Your task to perform on an android device: toggle location history Image 0: 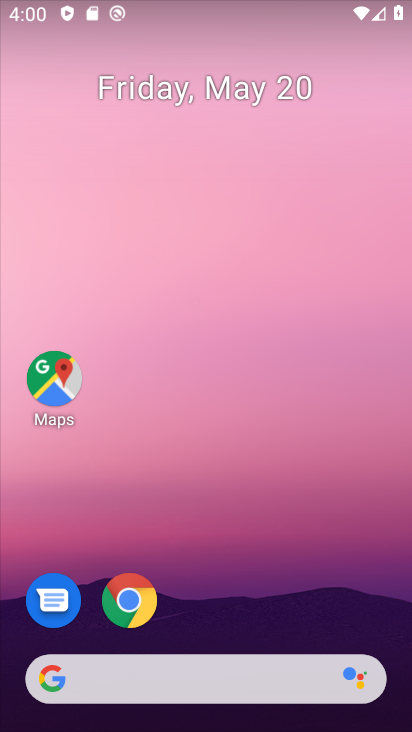
Step 0: drag from (251, 560) to (185, 30)
Your task to perform on an android device: toggle location history Image 1: 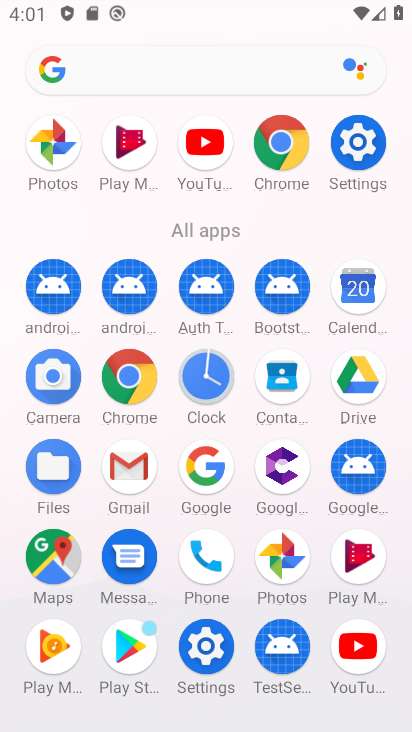
Step 1: click (205, 642)
Your task to perform on an android device: toggle location history Image 2: 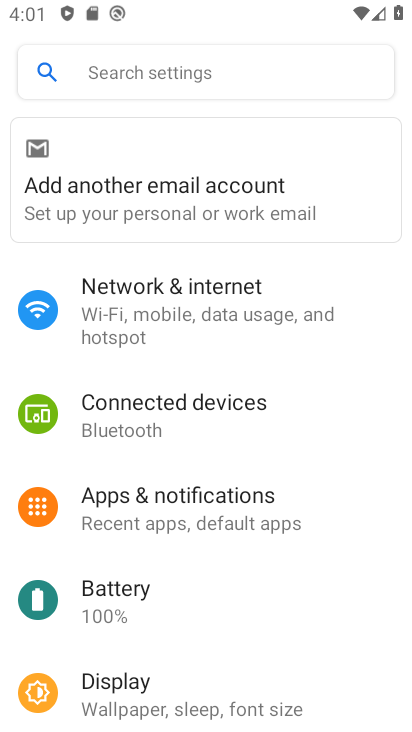
Step 2: drag from (309, 609) to (292, 264)
Your task to perform on an android device: toggle location history Image 3: 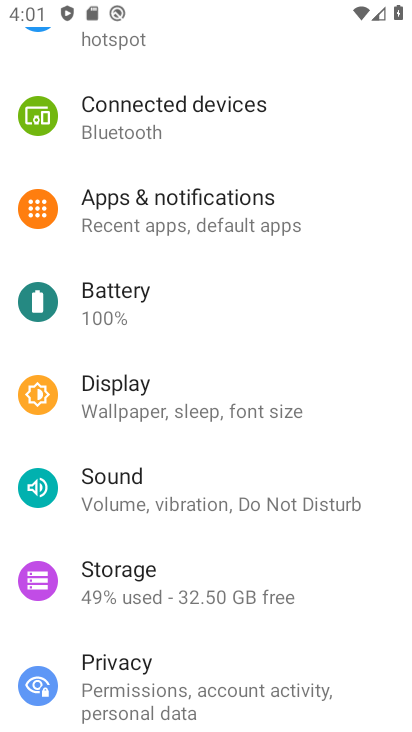
Step 3: drag from (324, 519) to (327, 144)
Your task to perform on an android device: toggle location history Image 4: 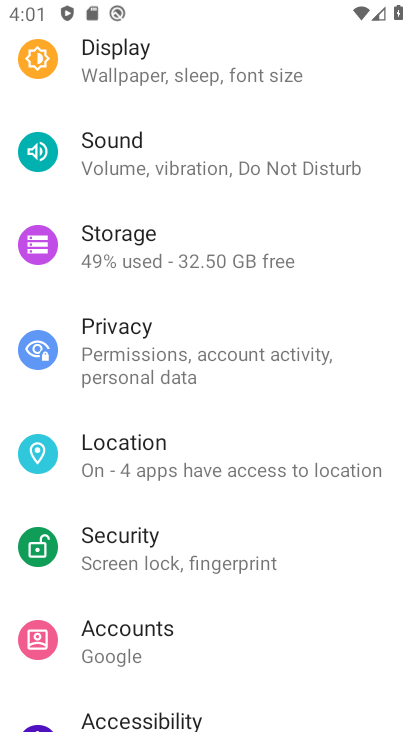
Step 4: click (168, 474)
Your task to perform on an android device: toggle location history Image 5: 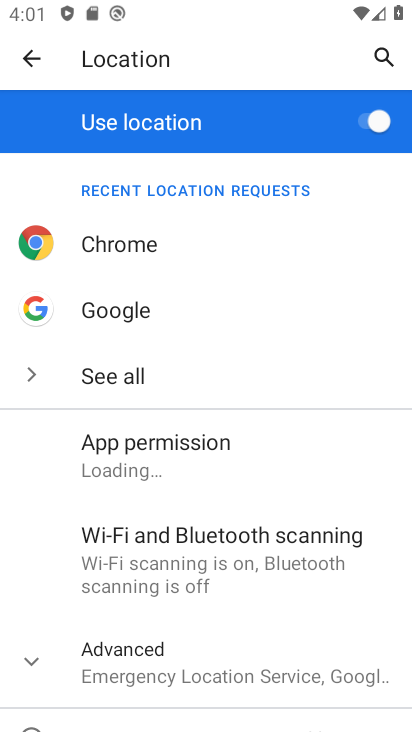
Step 5: click (111, 684)
Your task to perform on an android device: toggle location history Image 6: 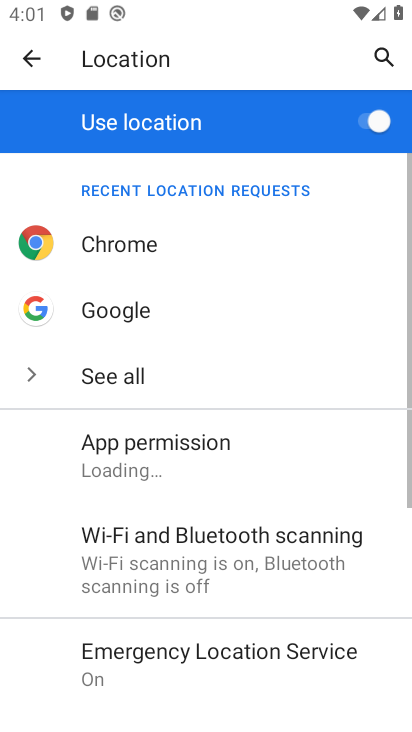
Step 6: drag from (253, 588) to (325, 201)
Your task to perform on an android device: toggle location history Image 7: 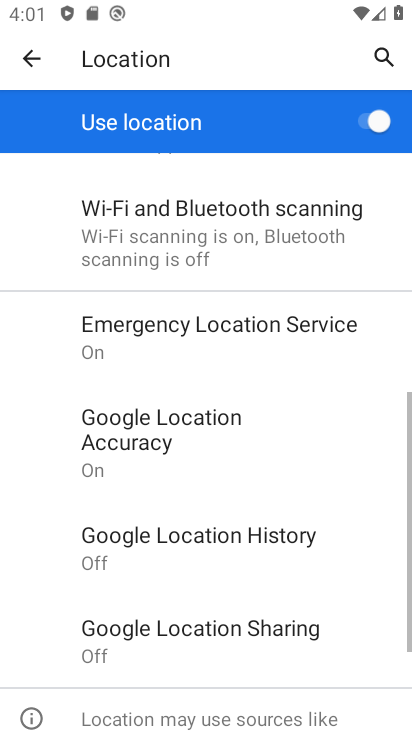
Step 7: click (234, 560)
Your task to perform on an android device: toggle location history Image 8: 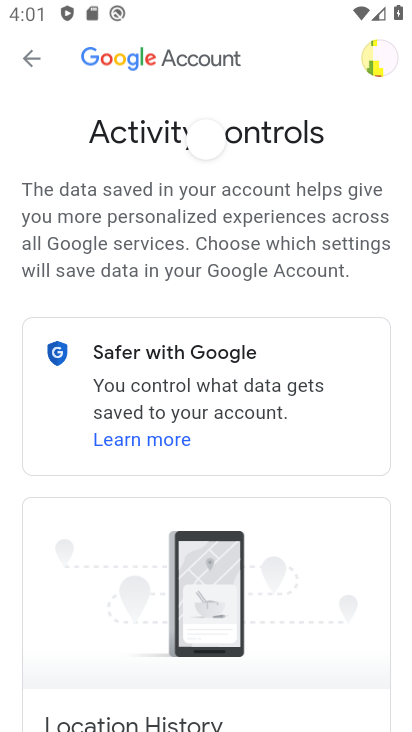
Step 8: drag from (129, 596) to (126, 195)
Your task to perform on an android device: toggle location history Image 9: 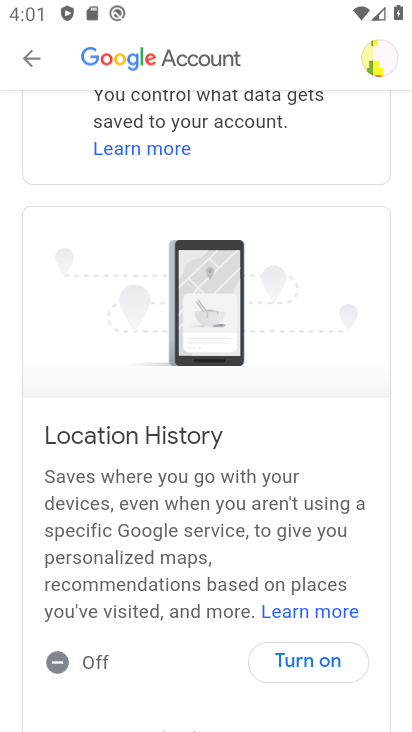
Step 9: drag from (81, 585) to (105, 185)
Your task to perform on an android device: toggle location history Image 10: 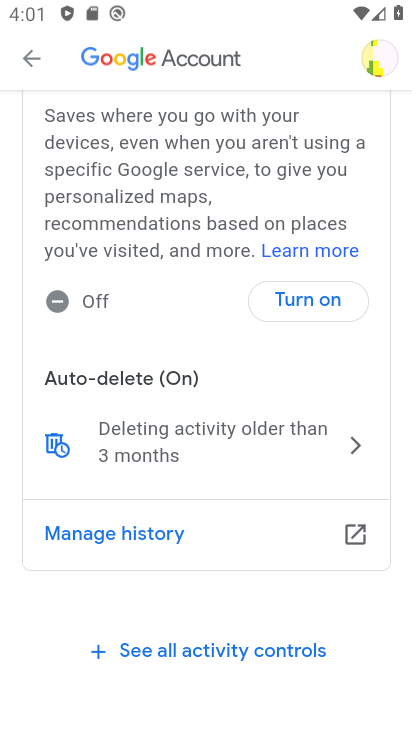
Step 10: click (279, 284)
Your task to perform on an android device: toggle location history Image 11: 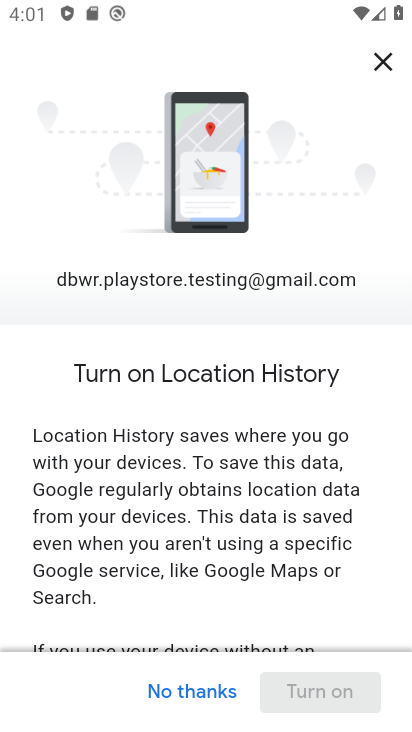
Step 11: drag from (286, 624) to (299, 156)
Your task to perform on an android device: toggle location history Image 12: 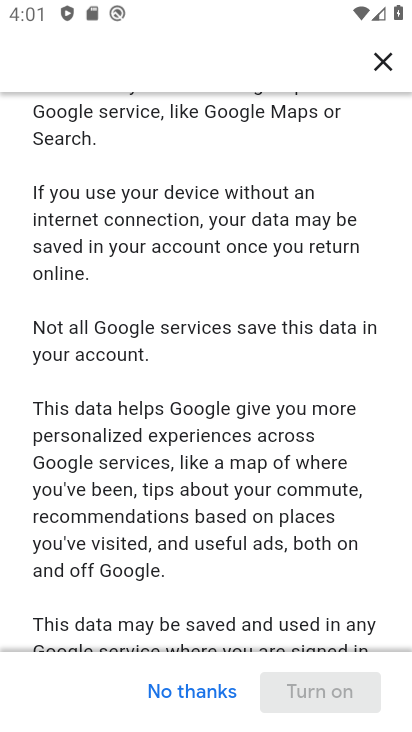
Step 12: drag from (149, 567) to (209, 79)
Your task to perform on an android device: toggle location history Image 13: 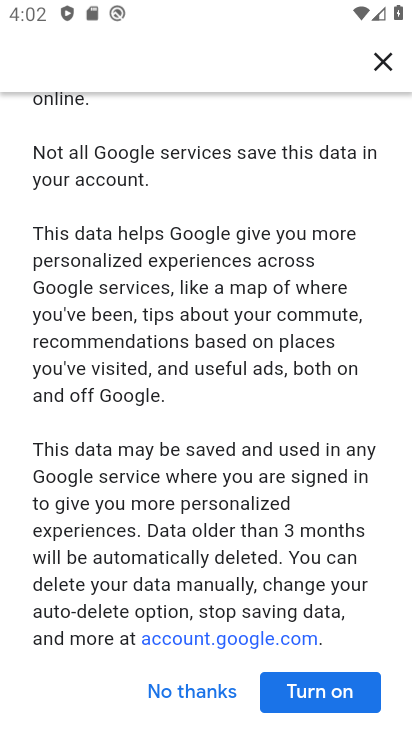
Step 13: click (296, 694)
Your task to perform on an android device: toggle location history Image 14: 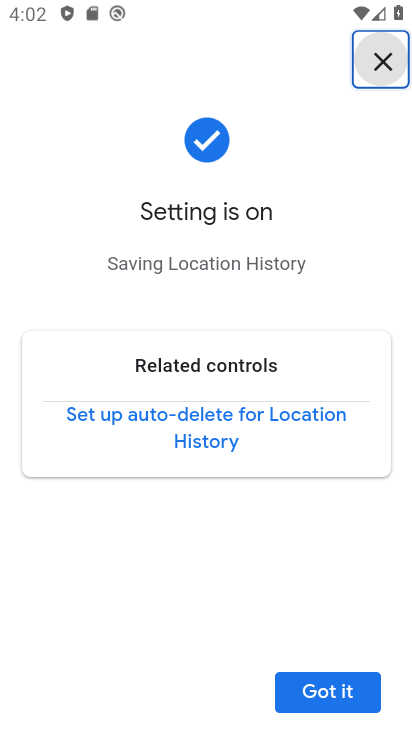
Step 14: click (306, 700)
Your task to perform on an android device: toggle location history Image 15: 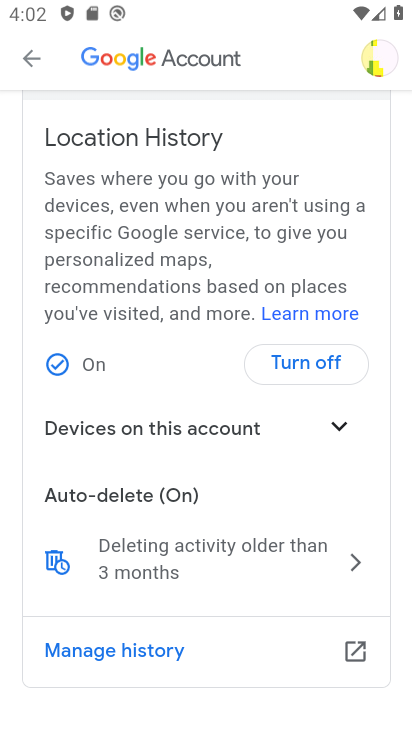
Step 15: task complete